Your task to perform on an android device: What's the weather going to be tomorrow? Image 0: 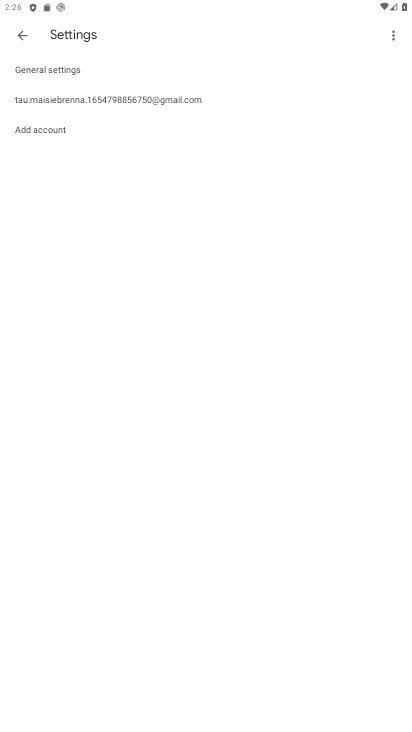
Step 0: press home button
Your task to perform on an android device: What's the weather going to be tomorrow? Image 1: 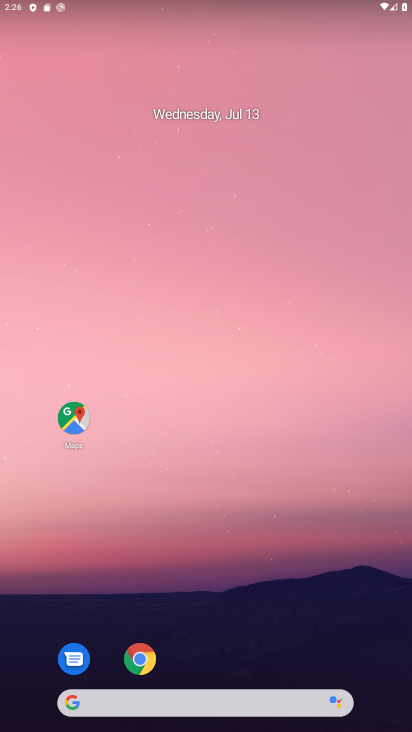
Step 1: click (205, 695)
Your task to perform on an android device: What's the weather going to be tomorrow? Image 2: 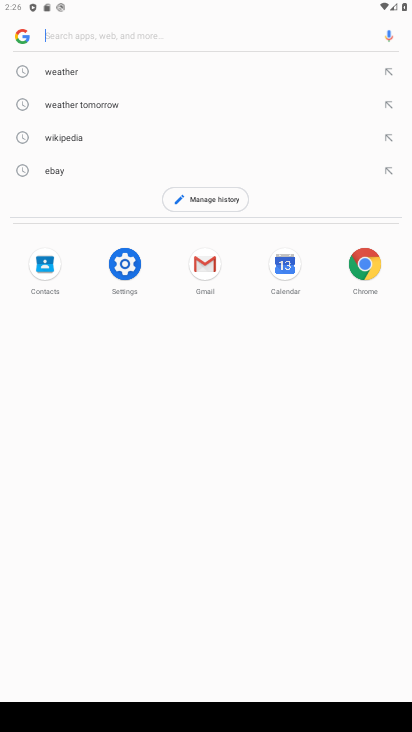
Step 2: click (121, 104)
Your task to perform on an android device: What's the weather going to be tomorrow? Image 3: 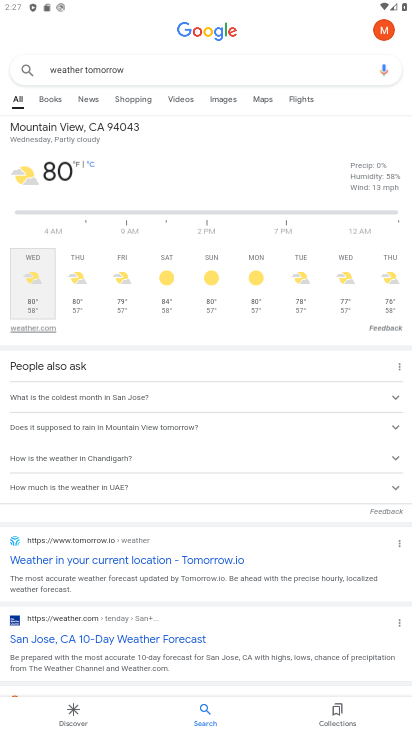
Step 3: click (79, 269)
Your task to perform on an android device: What's the weather going to be tomorrow? Image 4: 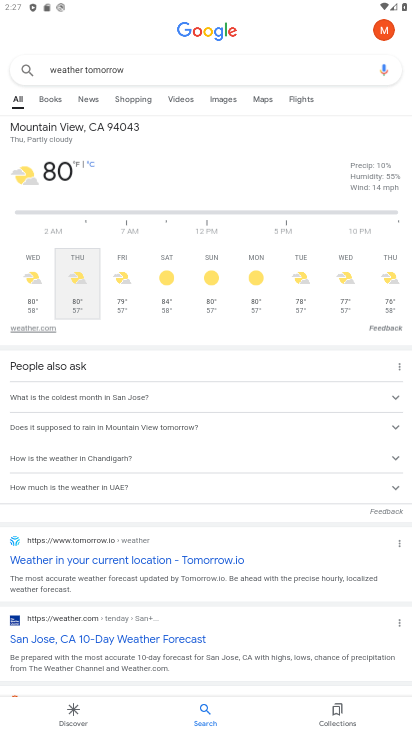
Step 4: task complete